Your task to perform on an android device: Search for pizza restaurants on Maps Image 0: 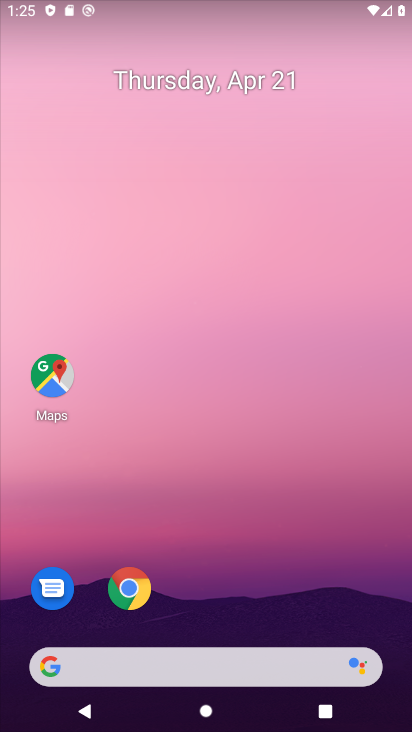
Step 0: drag from (208, 681) to (217, 95)
Your task to perform on an android device: Search for pizza restaurants on Maps Image 1: 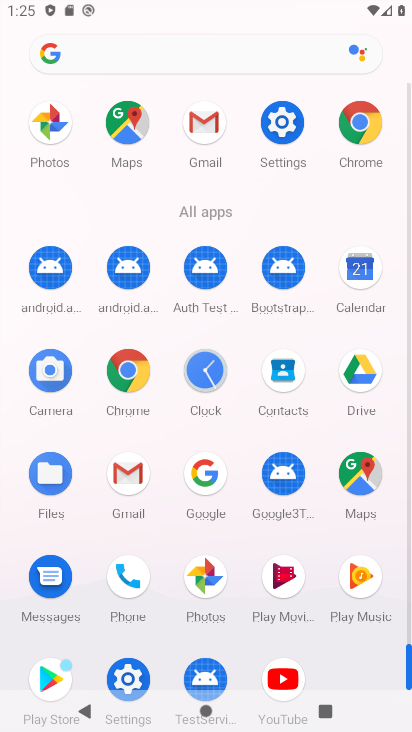
Step 1: click (142, 133)
Your task to perform on an android device: Search for pizza restaurants on Maps Image 2: 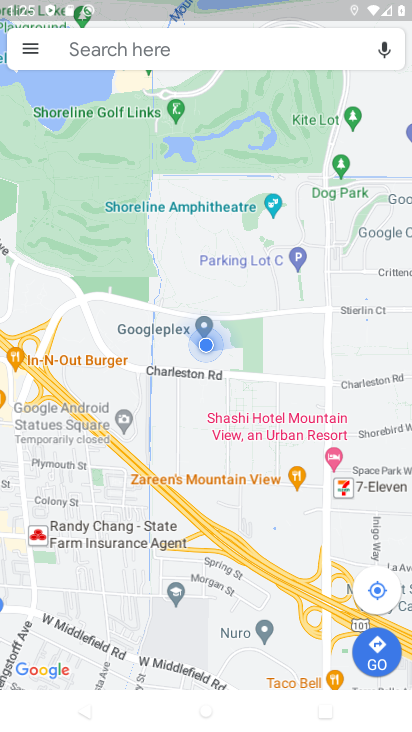
Step 2: click (195, 50)
Your task to perform on an android device: Search for pizza restaurants on Maps Image 3: 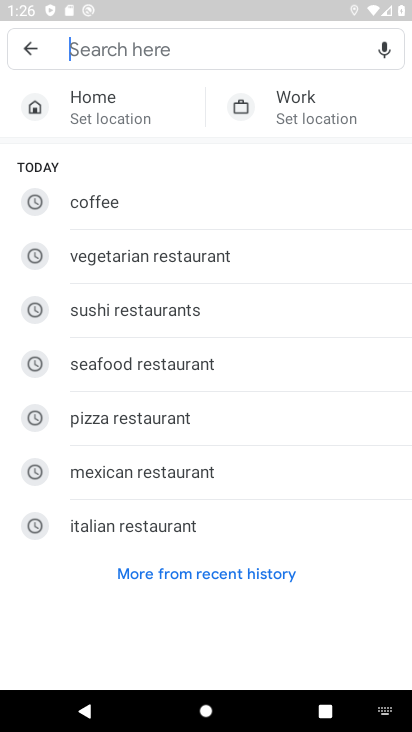
Step 3: type "pizza restaurants"
Your task to perform on an android device: Search for pizza restaurants on Maps Image 4: 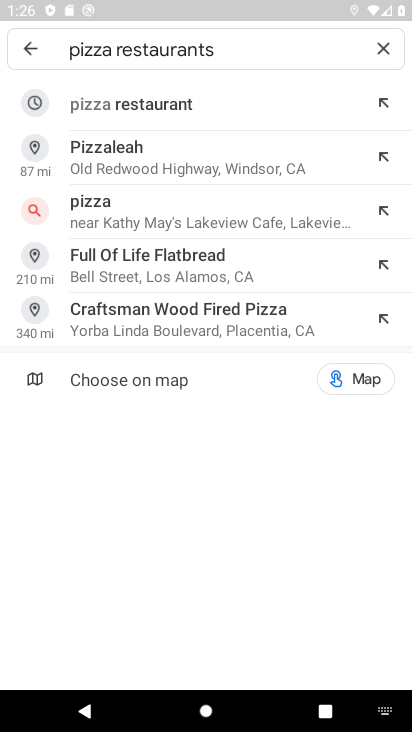
Step 4: click (266, 99)
Your task to perform on an android device: Search for pizza restaurants on Maps Image 5: 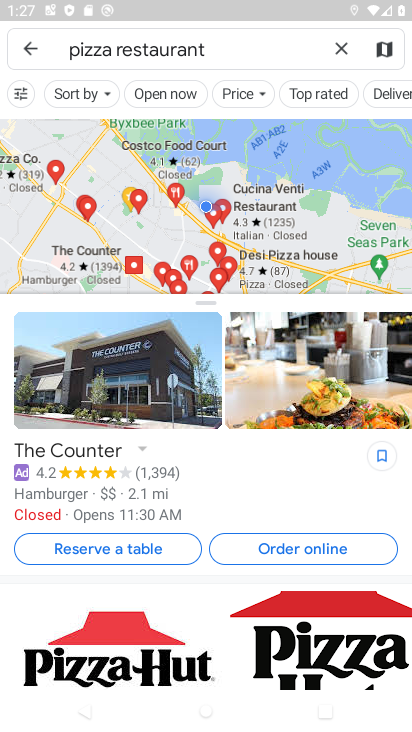
Step 5: task complete